Your task to perform on an android device: Go to internet settings Image 0: 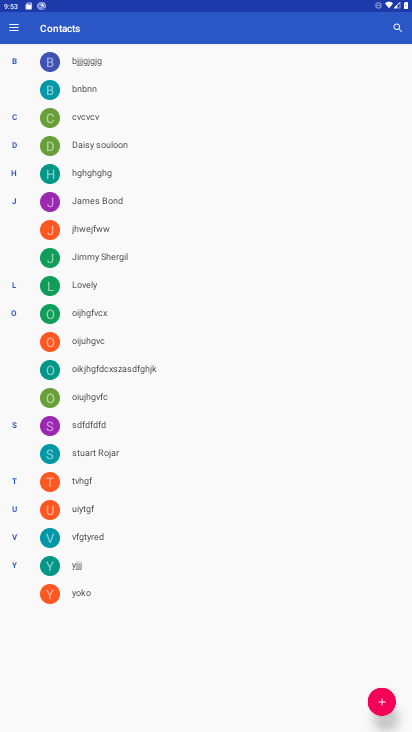
Step 0: press home button
Your task to perform on an android device: Go to internet settings Image 1: 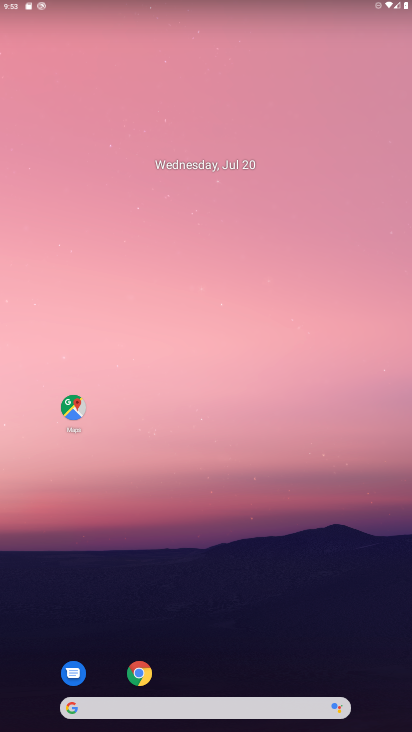
Step 1: drag from (202, 644) to (281, 106)
Your task to perform on an android device: Go to internet settings Image 2: 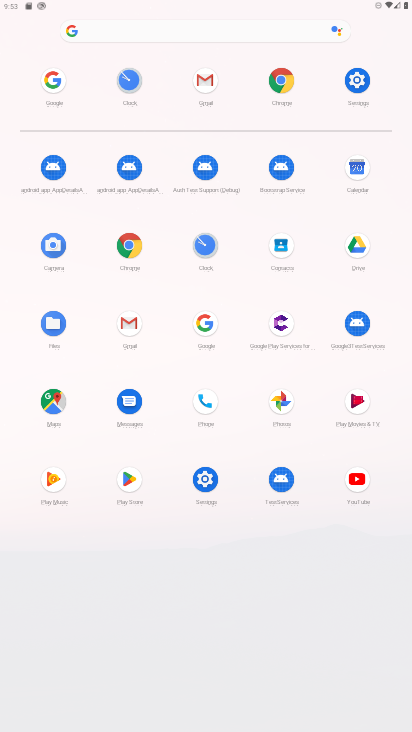
Step 2: click (187, 486)
Your task to perform on an android device: Go to internet settings Image 3: 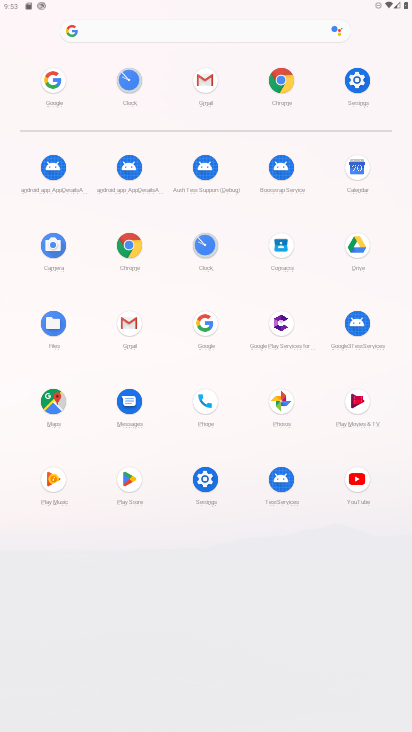
Step 3: click (187, 486)
Your task to perform on an android device: Go to internet settings Image 4: 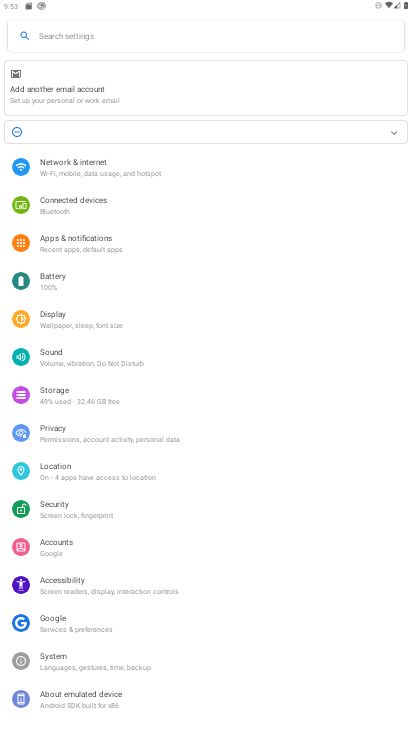
Step 4: click (134, 168)
Your task to perform on an android device: Go to internet settings Image 5: 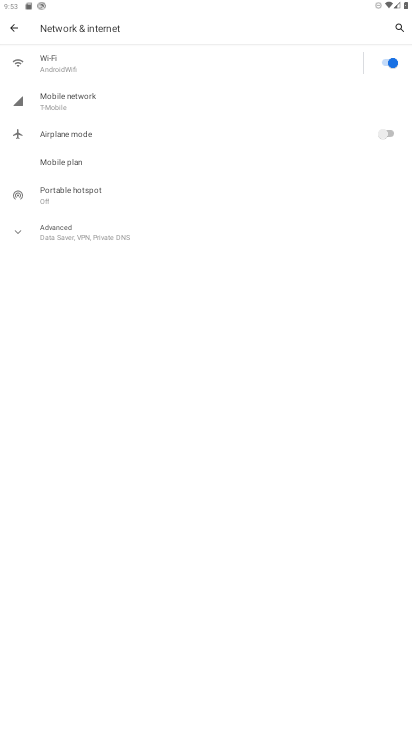
Step 5: task complete